Your task to perform on an android device: Go to Google maps Image 0: 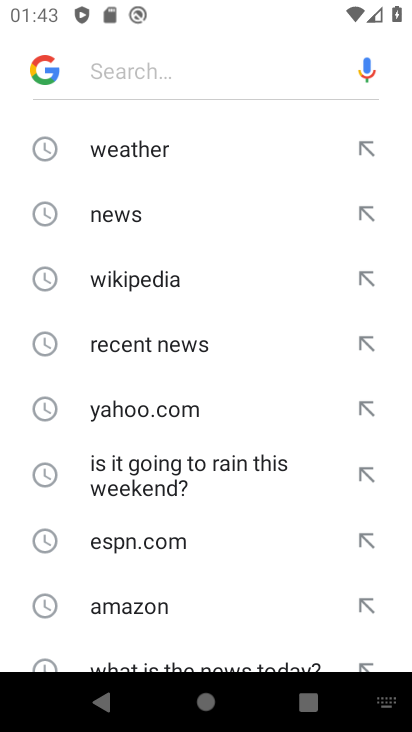
Step 0: press back button
Your task to perform on an android device: Go to Google maps Image 1: 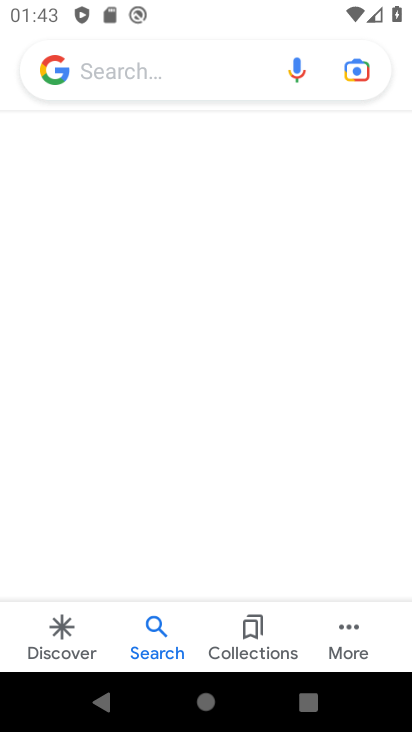
Step 1: press home button
Your task to perform on an android device: Go to Google maps Image 2: 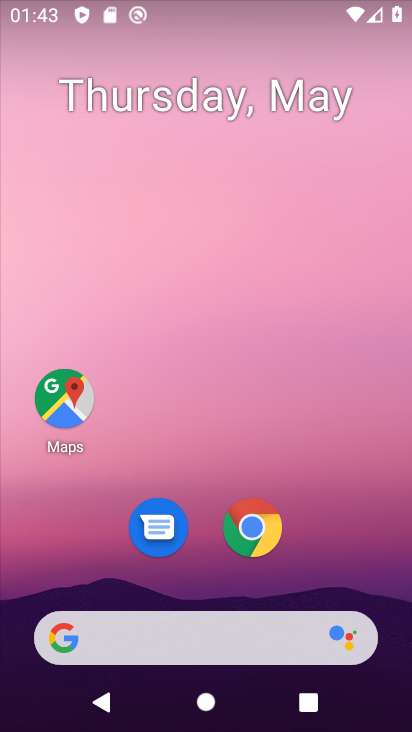
Step 2: drag from (206, 544) to (206, 48)
Your task to perform on an android device: Go to Google maps Image 3: 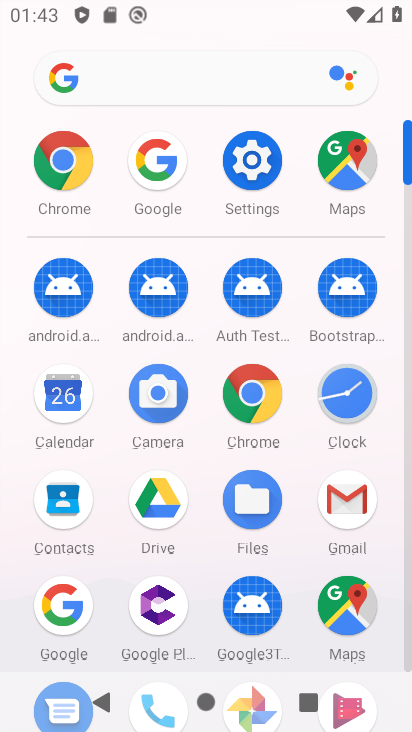
Step 3: drag from (66, 616) to (197, 370)
Your task to perform on an android device: Go to Google maps Image 4: 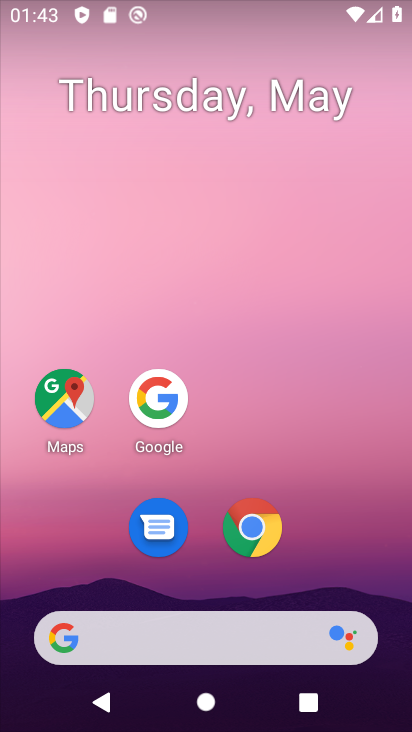
Step 4: click (161, 403)
Your task to perform on an android device: Go to Google maps Image 5: 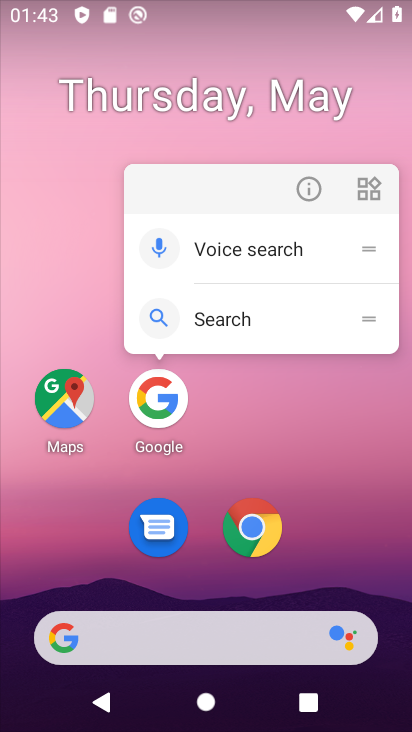
Step 5: click (58, 403)
Your task to perform on an android device: Go to Google maps Image 6: 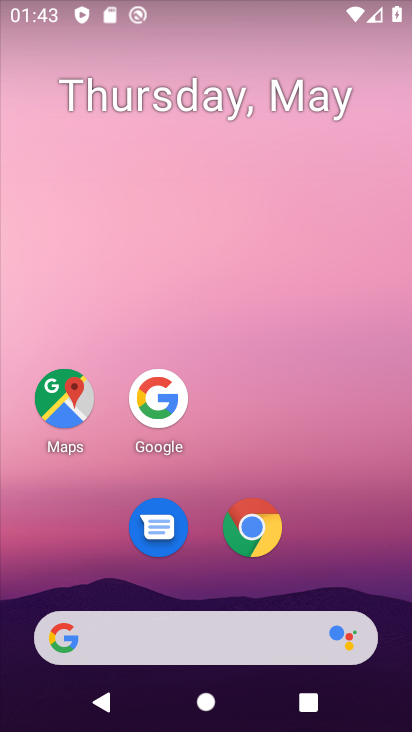
Step 6: click (58, 403)
Your task to perform on an android device: Go to Google maps Image 7: 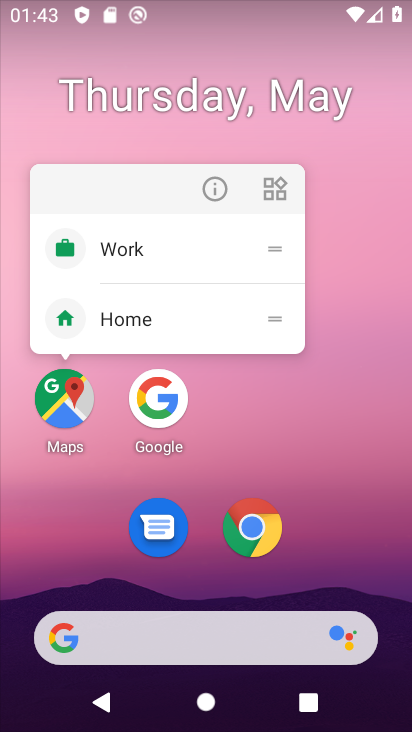
Step 7: click (220, 187)
Your task to perform on an android device: Go to Google maps Image 8: 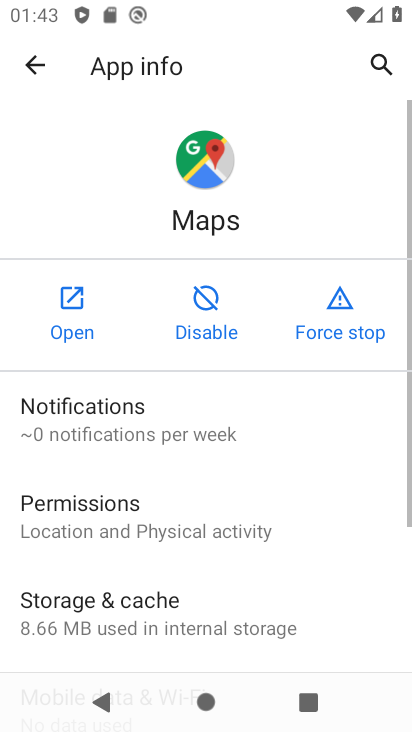
Step 8: click (69, 320)
Your task to perform on an android device: Go to Google maps Image 9: 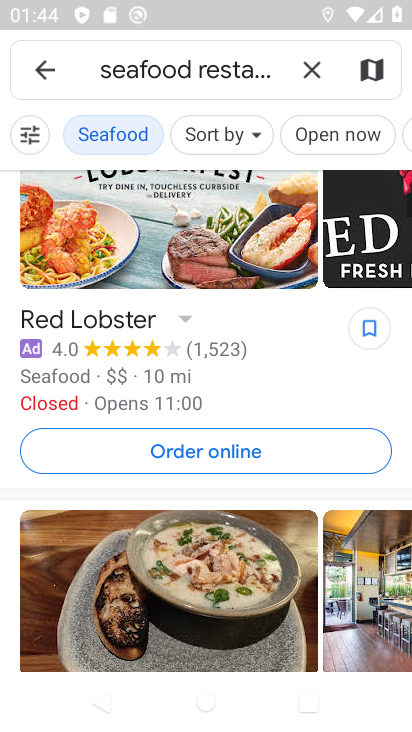
Step 9: task complete